Your task to perform on an android device: Search for "razer blade" on bestbuy, select the first entry, and add it to the cart. Image 0: 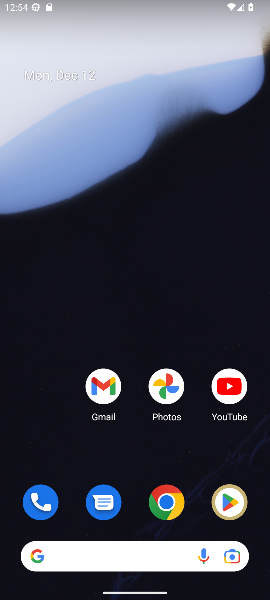
Step 0: click (177, 501)
Your task to perform on an android device: Search for "razer blade" on bestbuy, select the first entry, and add it to the cart. Image 1: 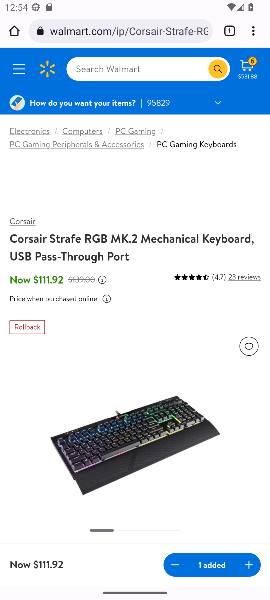
Step 1: click (164, 28)
Your task to perform on an android device: Search for "razer blade" on bestbuy, select the first entry, and add it to the cart. Image 2: 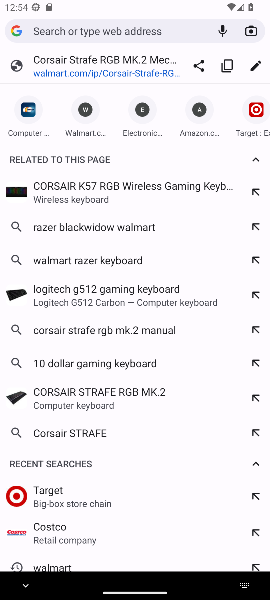
Step 2: type "bestbuy"
Your task to perform on an android device: Search for "razer blade" on bestbuy, select the first entry, and add it to the cart. Image 3: 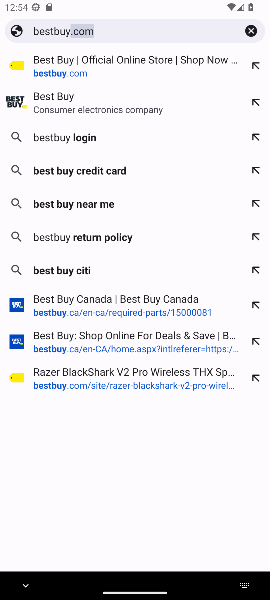
Step 3: click (147, 86)
Your task to perform on an android device: Search for "razer blade" on bestbuy, select the first entry, and add it to the cart. Image 4: 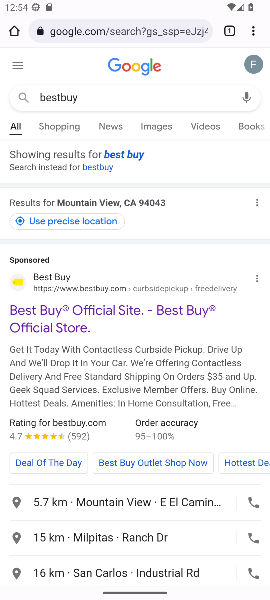
Step 4: click (67, 331)
Your task to perform on an android device: Search for "razer blade" on bestbuy, select the first entry, and add it to the cart. Image 5: 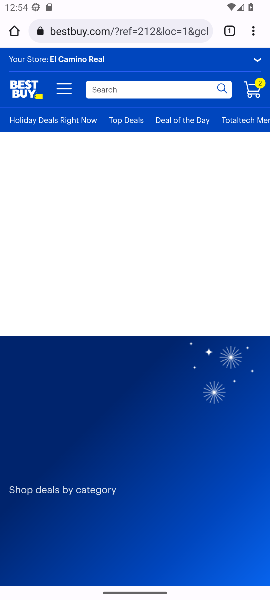
Step 5: click (178, 91)
Your task to perform on an android device: Search for "razer blade" on bestbuy, select the first entry, and add it to the cart. Image 6: 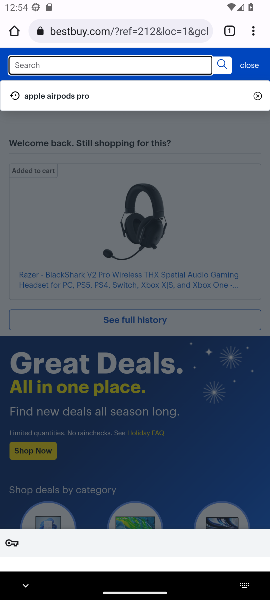
Step 6: type "razer ble"
Your task to perform on an android device: Search for "razer blade" on bestbuy, select the first entry, and add it to the cart. Image 7: 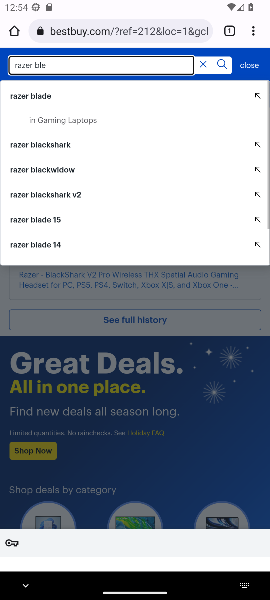
Step 7: click (32, 100)
Your task to perform on an android device: Search for "razer blade" on bestbuy, select the first entry, and add it to the cart. Image 8: 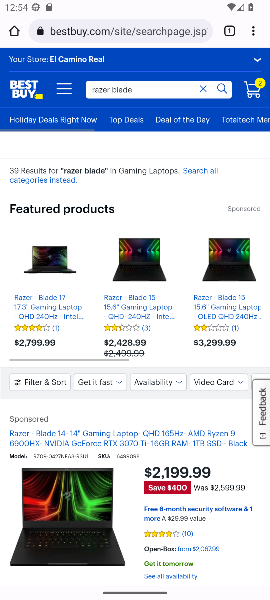
Step 8: drag from (197, 556) to (196, 403)
Your task to perform on an android device: Search for "razer blade" on bestbuy, select the first entry, and add it to the cart. Image 9: 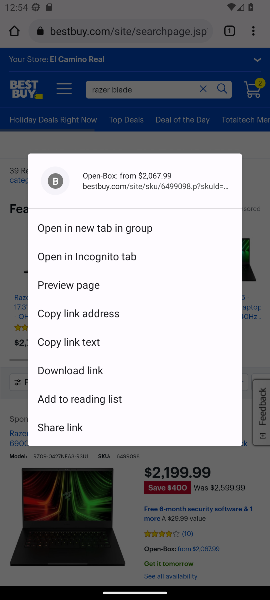
Step 9: click (242, 548)
Your task to perform on an android device: Search for "razer blade" on bestbuy, select the first entry, and add it to the cart. Image 10: 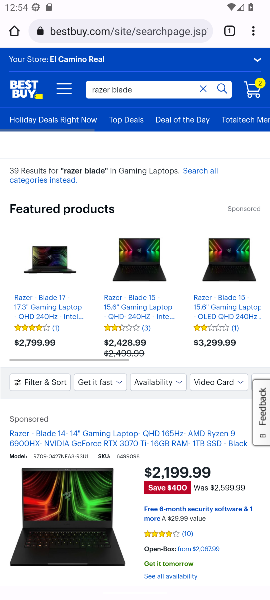
Step 10: drag from (242, 548) to (225, 300)
Your task to perform on an android device: Search for "razer blade" on bestbuy, select the first entry, and add it to the cart. Image 11: 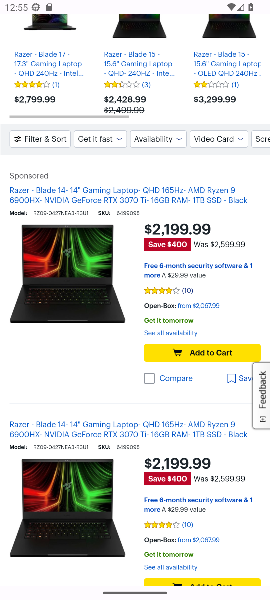
Step 11: click (212, 352)
Your task to perform on an android device: Search for "razer blade" on bestbuy, select the first entry, and add it to the cart. Image 12: 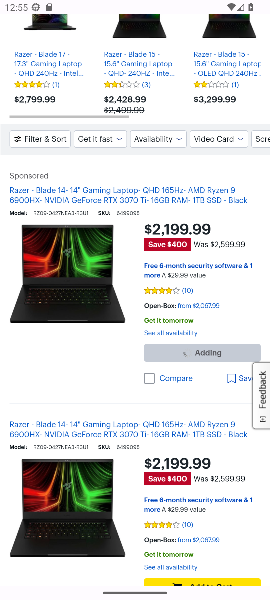
Step 12: task complete